Your task to perform on an android device: check storage Image 0: 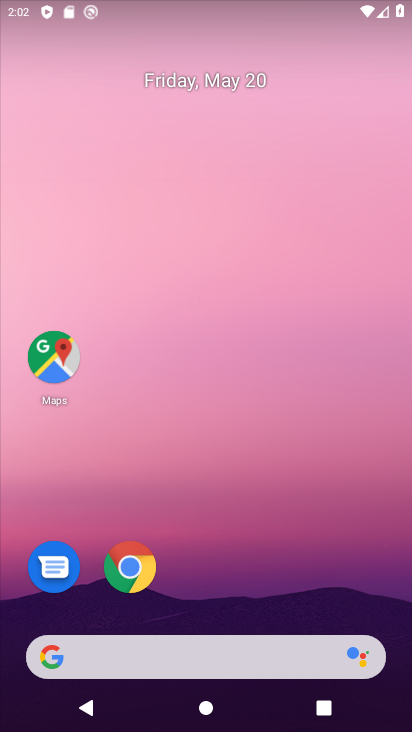
Step 0: drag from (241, 563) to (187, 61)
Your task to perform on an android device: check storage Image 1: 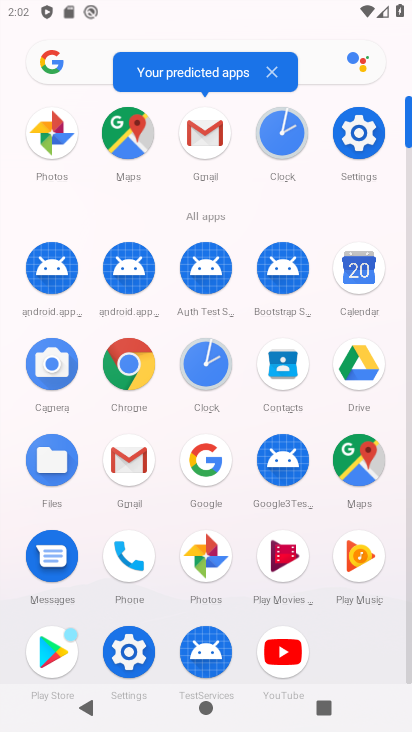
Step 1: click (128, 652)
Your task to perform on an android device: check storage Image 2: 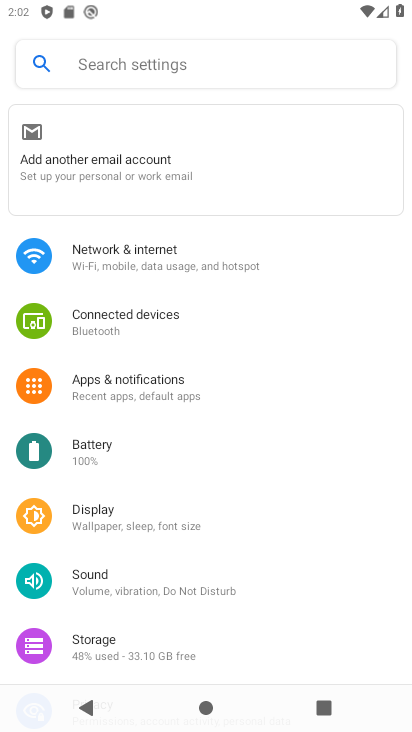
Step 2: drag from (177, 313) to (190, 218)
Your task to perform on an android device: check storage Image 3: 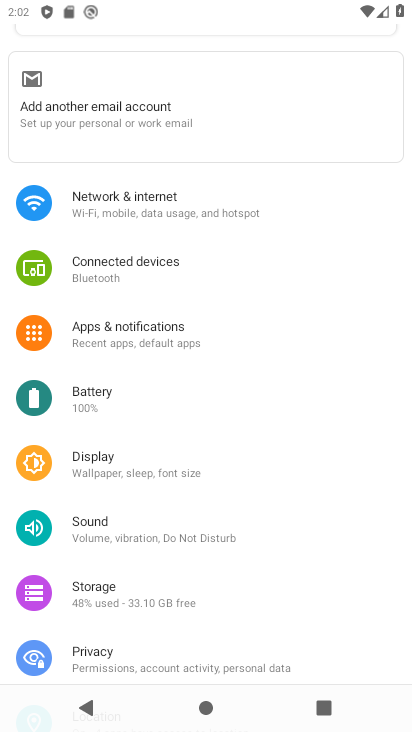
Step 3: drag from (231, 454) to (219, 195)
Your task to perform on an android device: check storage Image 4: 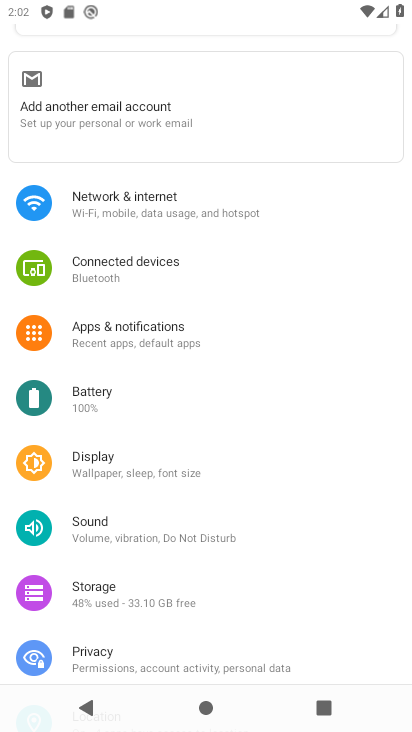
Step 4: drag from (136, 602) to (215, 211)
Your task to perform on an android device: check storage Image 5: 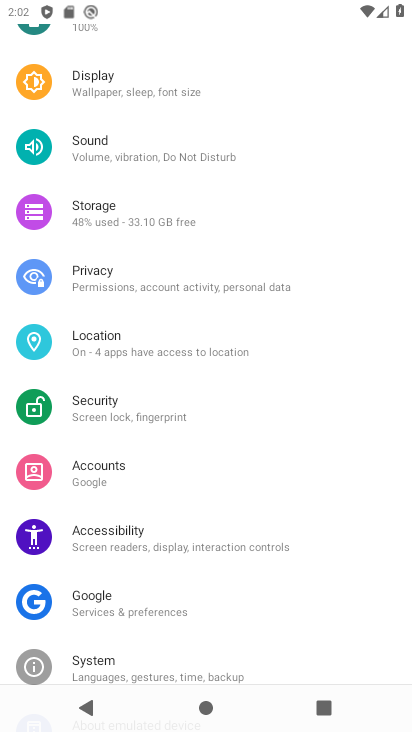
Step 5: drag from (119, 605) to (226, 195)
Your task to perform on an android device: check storage Image 6: 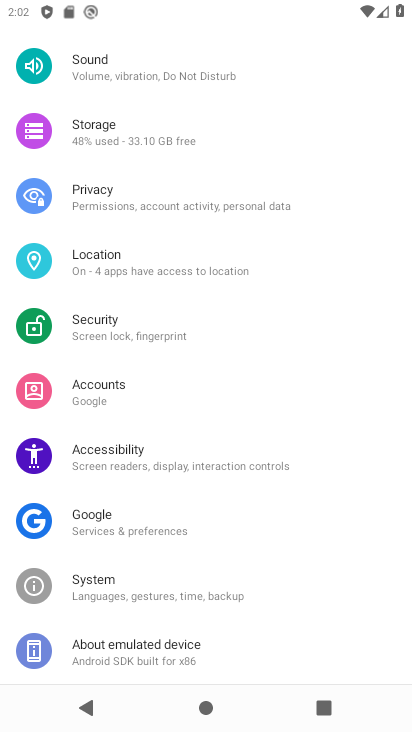
Step 6: drag from (208, 549) to (234, 154)
Your task to perform on an android device: check storage Image 7: 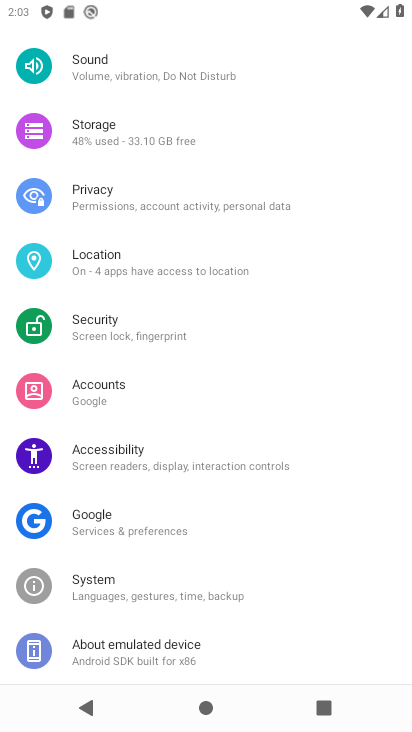
Step 7: drag from (156, 592) to (201, 153)
Your task to perform on an android device: check storage Image 8: 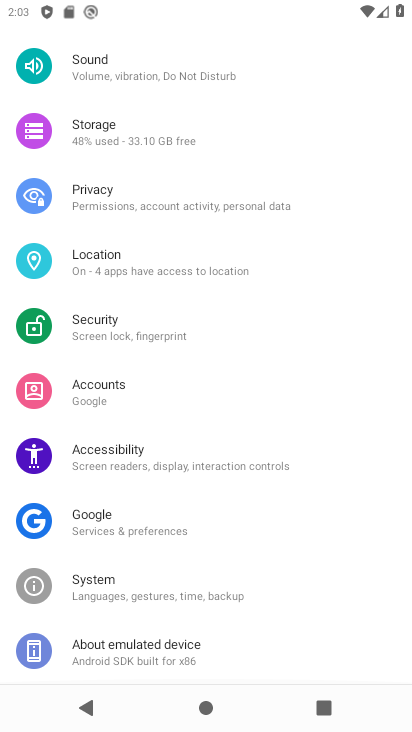
Step 8: drag from (201, 208) to (205, 505)
Your task to perform on an android device: check storage Image 9: 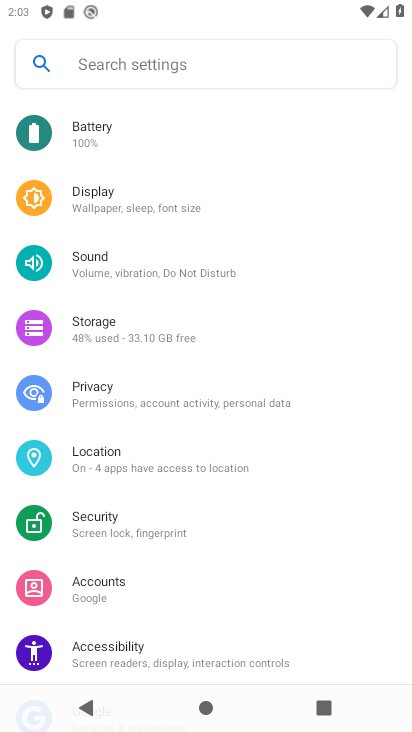
Step 9: click (99, 330)
Your task to perform on an android device: check storage Image 10: 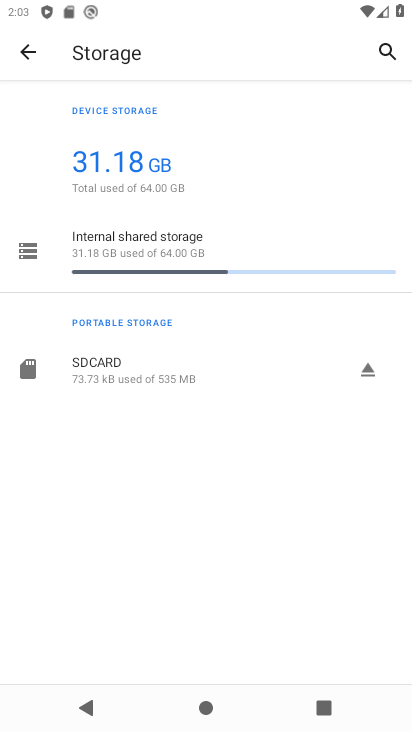
Step 10: task complete